Your task to perform on an android device: turn on priority inbox in the gmail app Image 0: 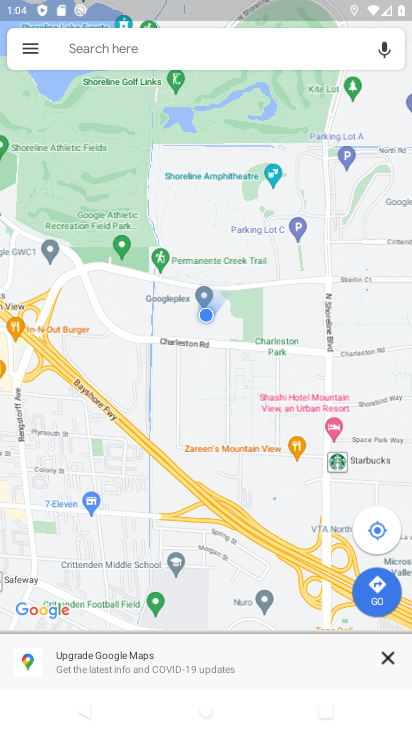
Step 0: press home button
Your task to perform on an android device: turn on priority inbox in the gmail app Image 1: 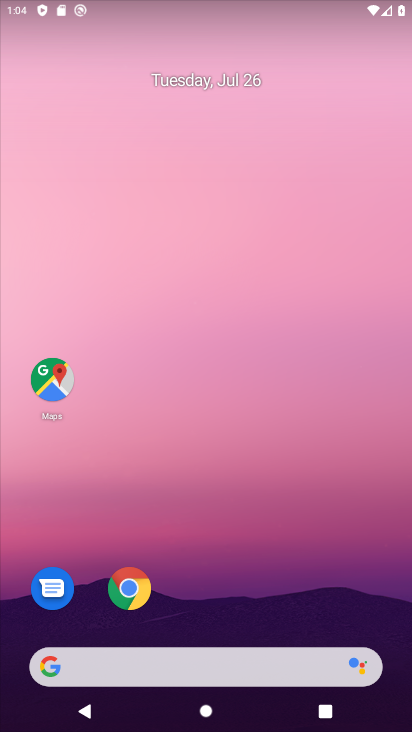
Step 1: drag from (301, 577) to (157, 80)
Your task to perform on an android device: turn on priority inbox in the gmail app Image 2: 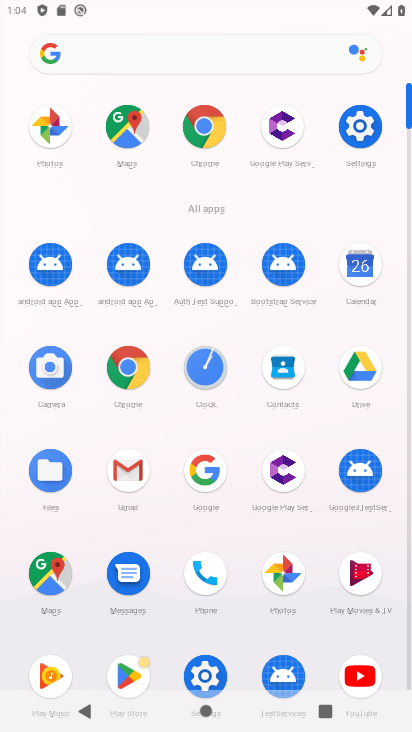
Step 2: click (137, 455)
Your task to perform on an android device: turn on priority inbox in the gmail app Image 3: 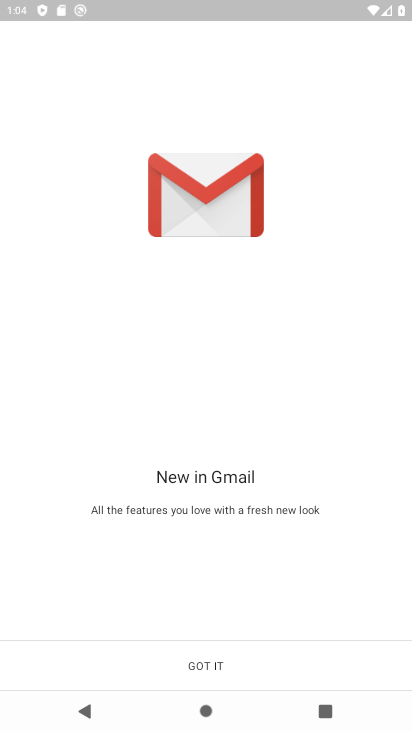
Step 3: click (254, 648)
Your task to perform on an android device: turn on priority inbox in the gmail app Image 4: 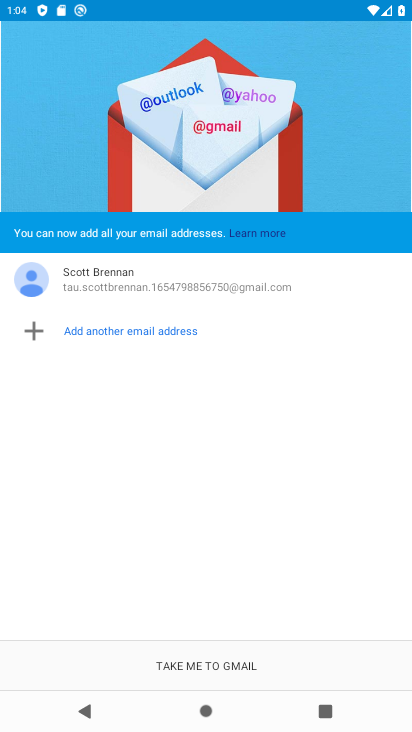
Step 4: click (254, 648)
Your task to perform on an android device: turn on priority inbox in the gmail app Image 5: 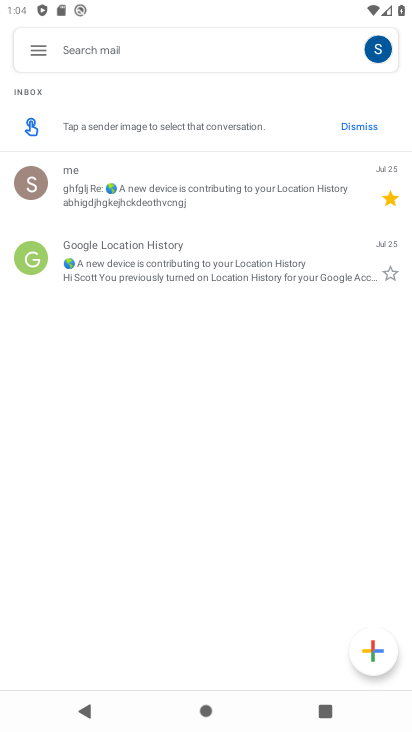
Step 5: click (37, 65)
Your task to perform on an android device: turn on priority inbox in the gmail app Image 6: 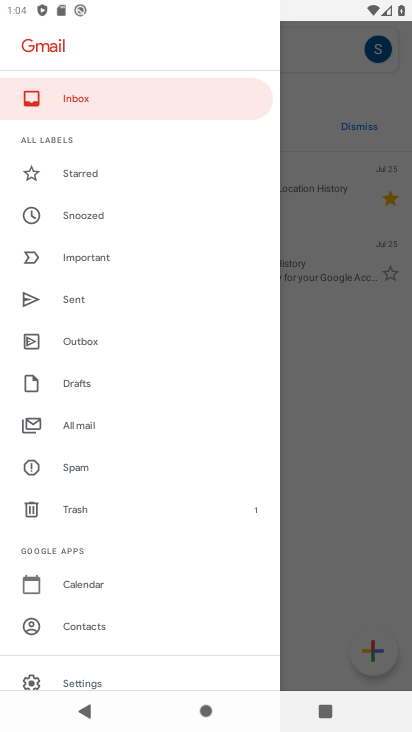
Step 6: click (117, 677)
Your task to perform on an android device: turn on priority inbox in the gmail app Image 7: 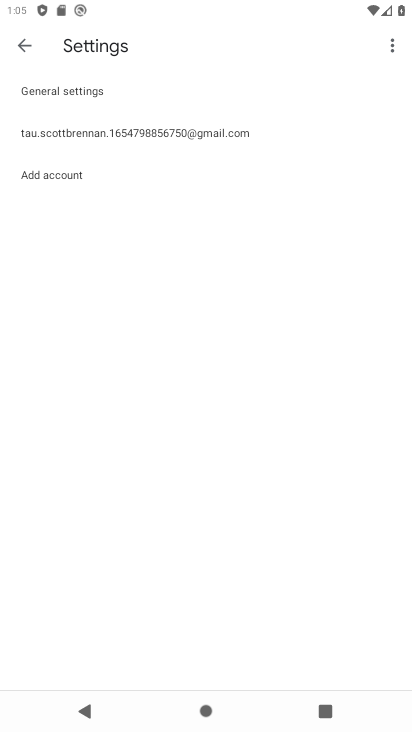
Step 7: click (159, 128)
Your task to perform on an android device: turn on priority inbox in the gmail app Image 8: 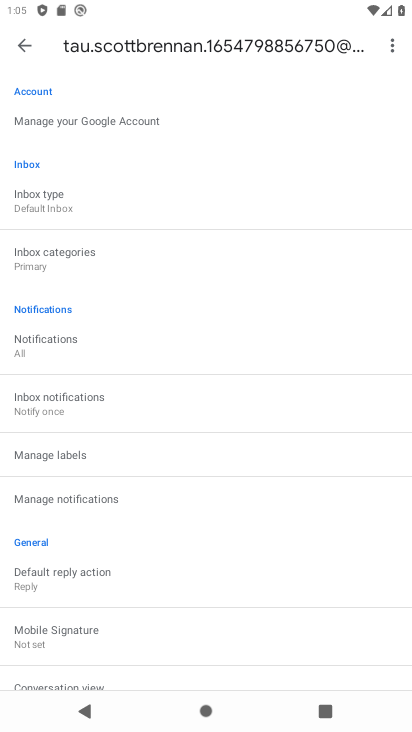
Step 8: click (129, 204)
Your task to perform on an android device: turn on priority inbox in the gmail app Image 9: 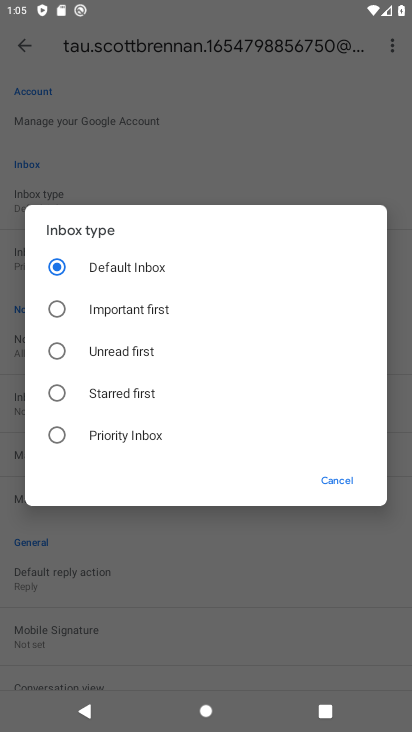
Step 9: click (118, 441)
Your task to perform on an android device: turn on priority inbox in the gmail app Image 10: 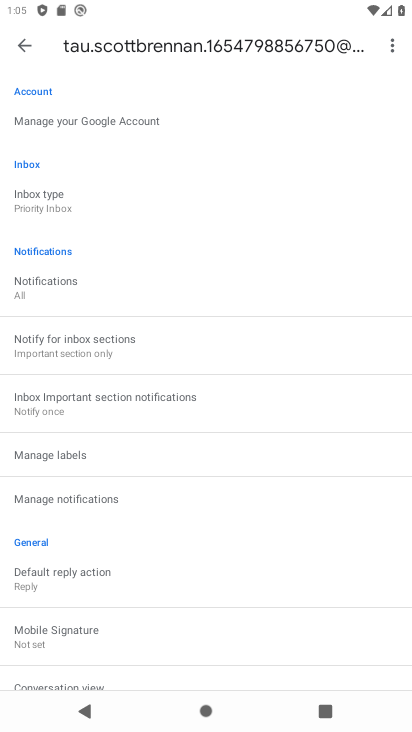
Step 10: task complete